Your task to perform on an android device: Open maps Image 0: 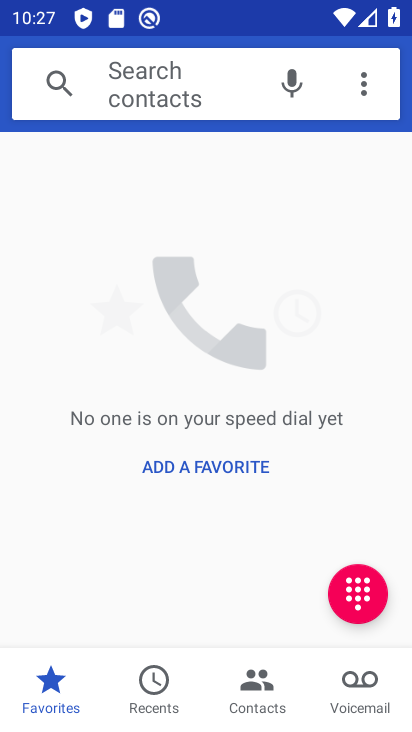
Step 0: press enter
Your task to perform on an android device: Open maps Image 1: 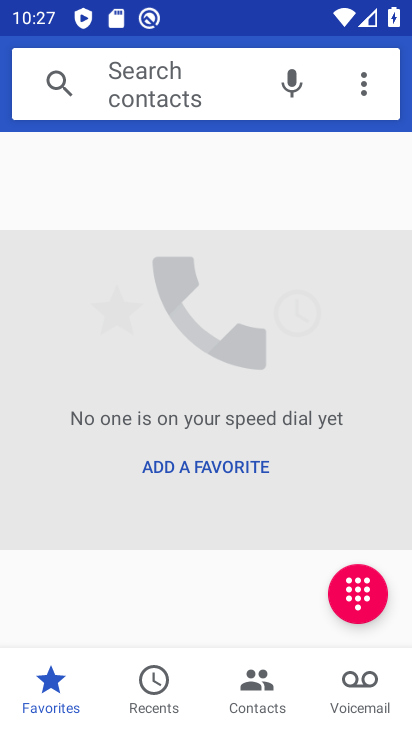
Step 1: press home button
Your task to perform on an android device: Open maps Image 2: 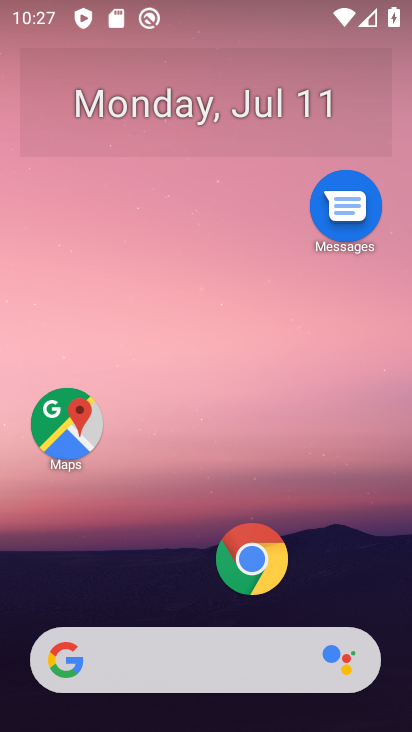
Step 2: drag from (370, 557) to (362, 109)
Your task to perform on an android device: Open maps Image 3: 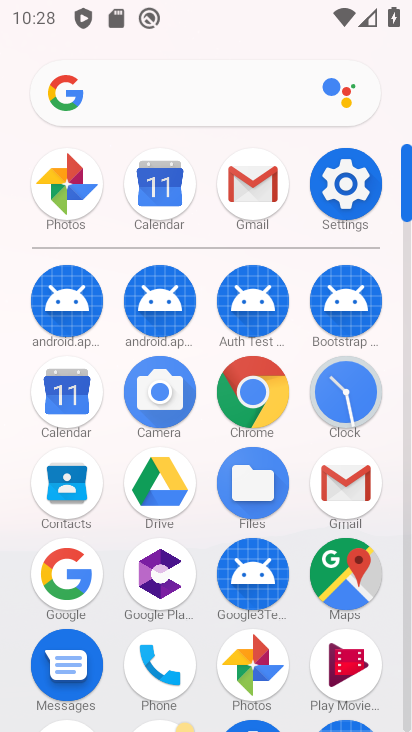
Step 3: click (348, 572)
Your task to perform on an android device: Open maps Image 4: 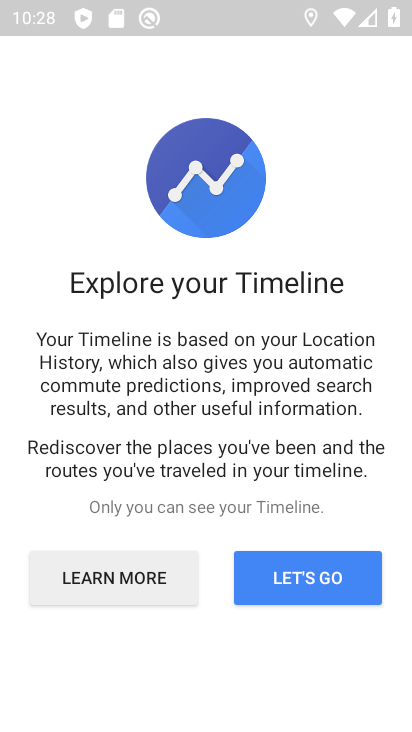
Step 4: task complete